Your task to perform on an android device: Open Youtube and go to "Your channel" Image 0: 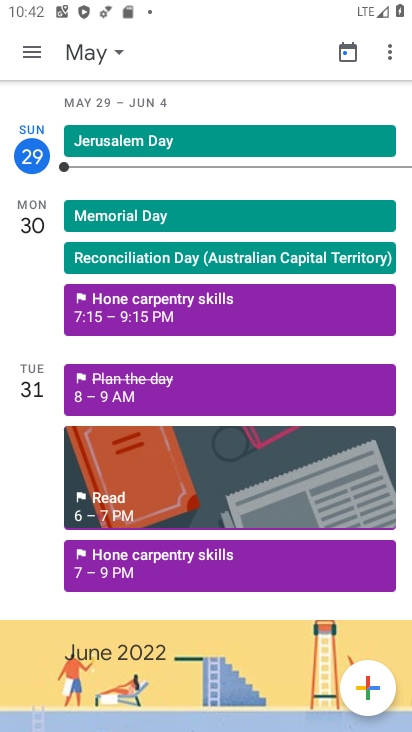
Step 0: press home button
Your task to perform on an android device: Open Youtube and go to "Your channel" Image 1: 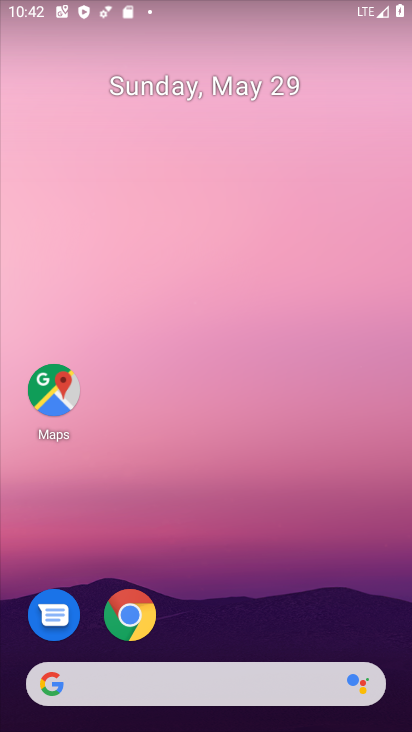
Step 1: drag from (346, 584) to (346, 240)
Your task to perform on an android device: Open Youtube and go to "Your channel" Image 2: 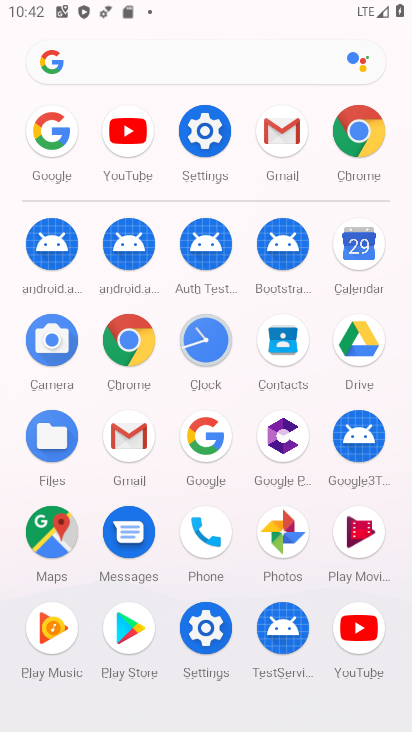
Step 2: click (359, 632)
Your task to perform on an android device: Open Youtube and go to "Your channel" Image 3: 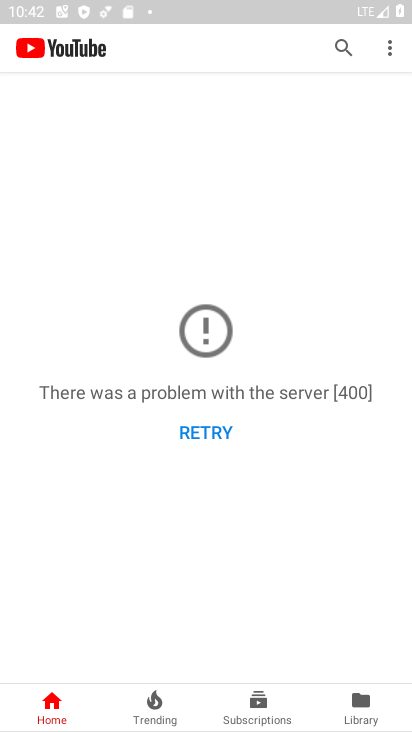
Step 3: click (389, 55)
Your task to perform on an android device: Open Youtube and go to "Your channel" Image 4: 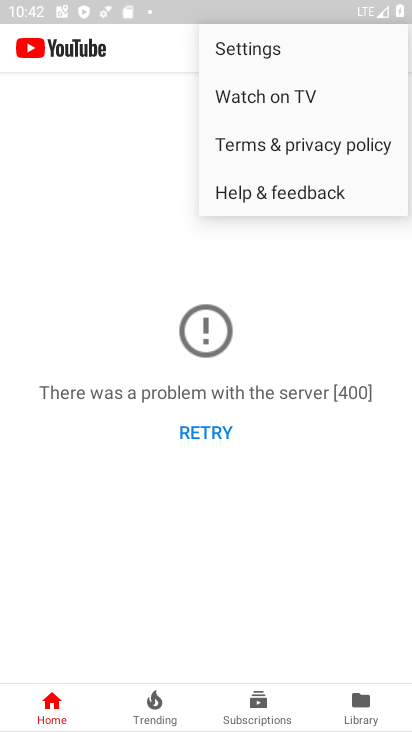
Step 4: click (256, 55)
Your task to perform on an android device: Open Youtube and go to "Your channel" Image 5: 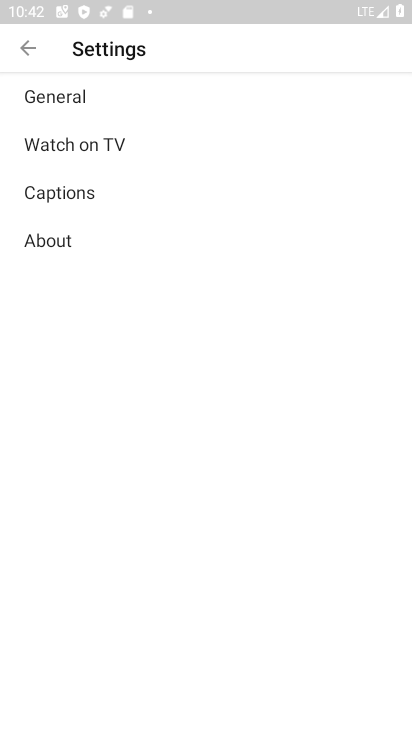
Step 5: task complete